Your task to perform on an android device: Go to Amazon Image 0: 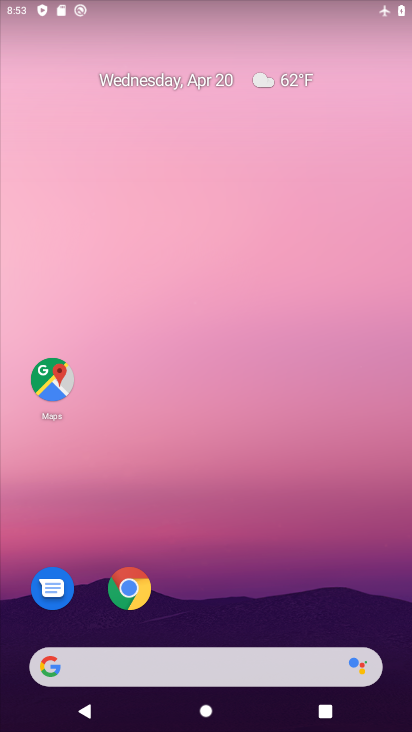
Step 0: drag from (253, 504) to (157, 11)
Your task to perform on an android device: Go to Amazon Image 1: 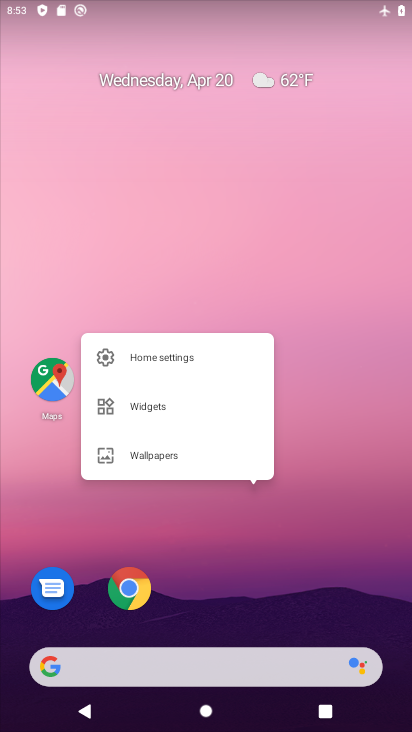
Step 1: drag from (338, 499) to (239, 6)
Your task to perform on an android device: Go to Amazon Image 2: 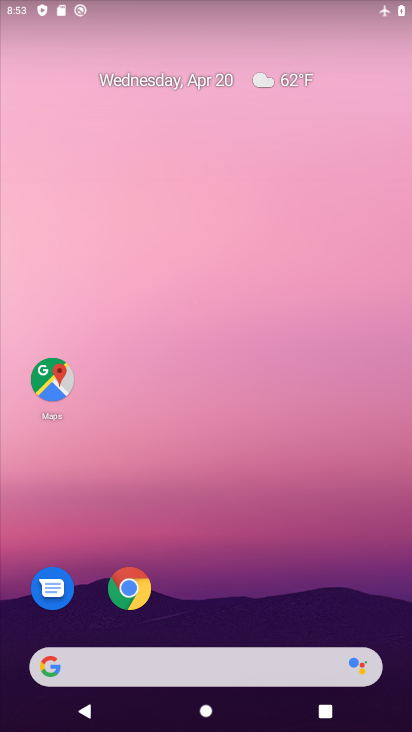
Step 2: drag from (172, 345) to (104, 0)
Your task to perform on an android device: Go to Amazon Image 3: 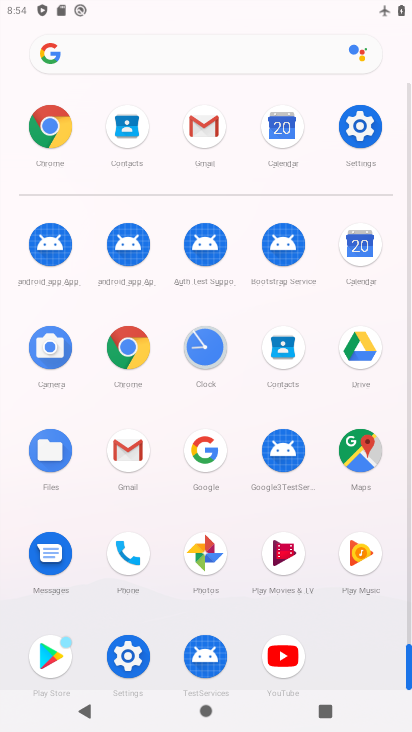
Step 3: drag from (1, 432) to (9, 239)
Your task to perform on an android device: Go to Amazon Image 4: 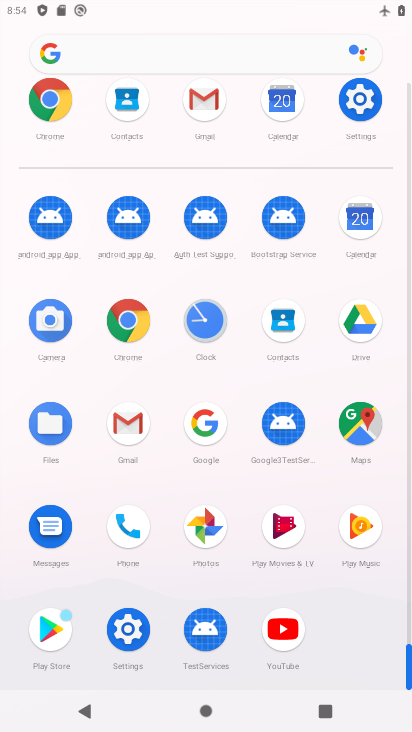
Step 4: click (123, 316)
Your task to perform on an android device: Go to Amazon Image 5: 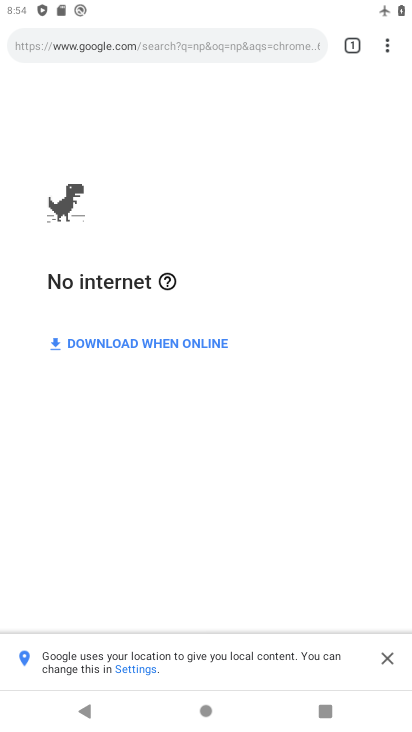
Step 5: click (204, 37)
Your task to perform on an android device: Go to Amazon Image 6: 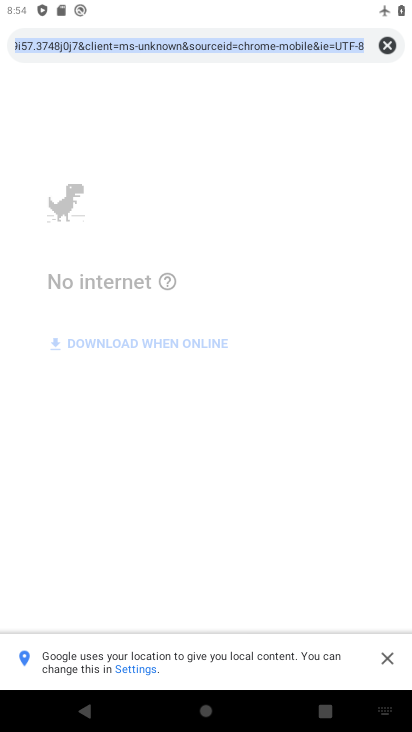
Step 6: click (386, 42)
Your task to perform on an android device: Go to Amazon Image 7: 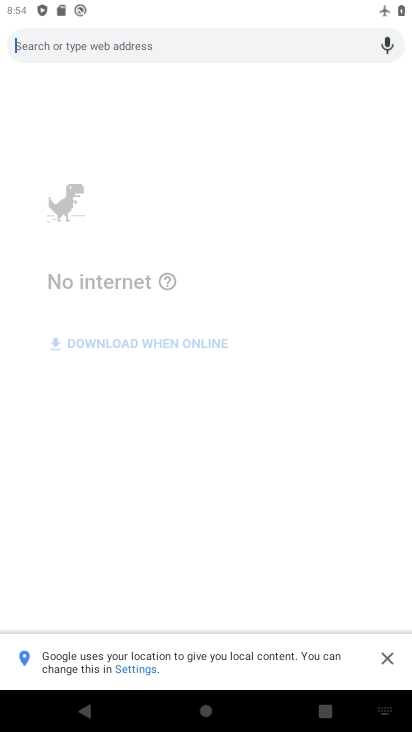
Step 7: type " Amazon"
Your task to perform on an android device: Go to Amazon Image 8: 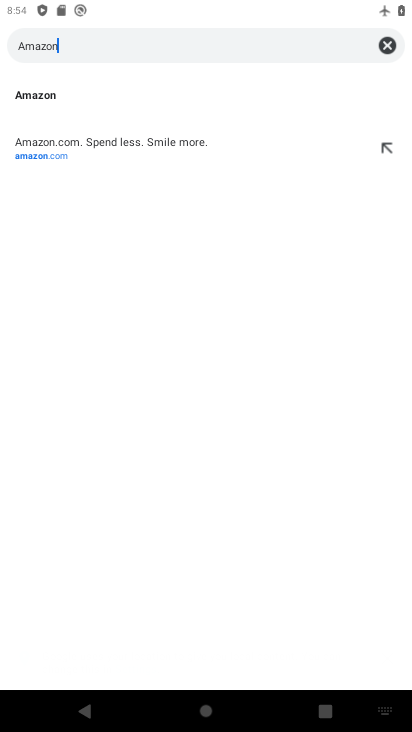
Step 8: type ""
Your task to perform on an android device: Go to Amazon Image 9: 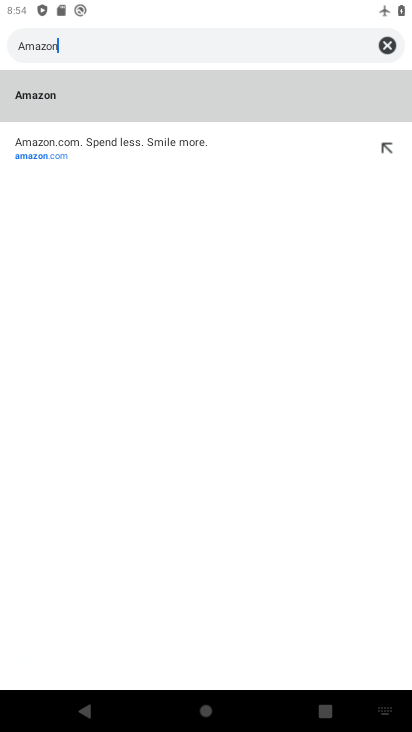
Step 9: click (103, 143)
Your task to perform on an android device: Go to Amazon Image 10: 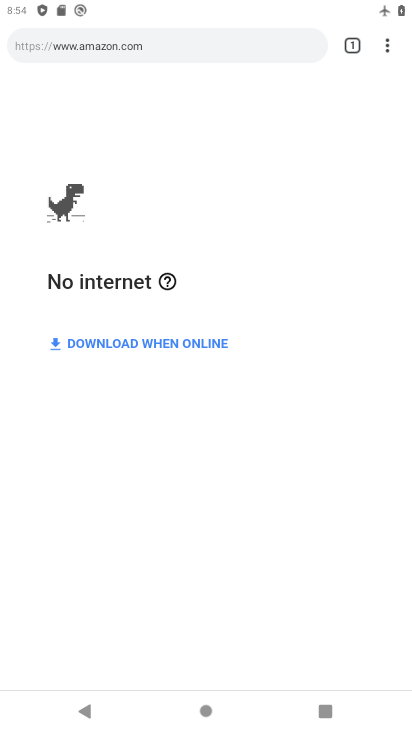
Step 10: task complete